Your task to perform on an android device: turn on the 24-hour format for clock Image 0: 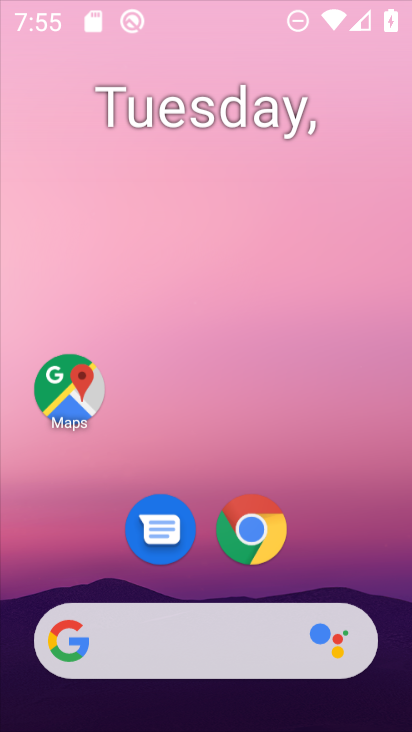
Step 0: drag from (177, 542) to (268, 90)
Your task to perform on an android device: turn on the 24-hour format for clock Image 1: 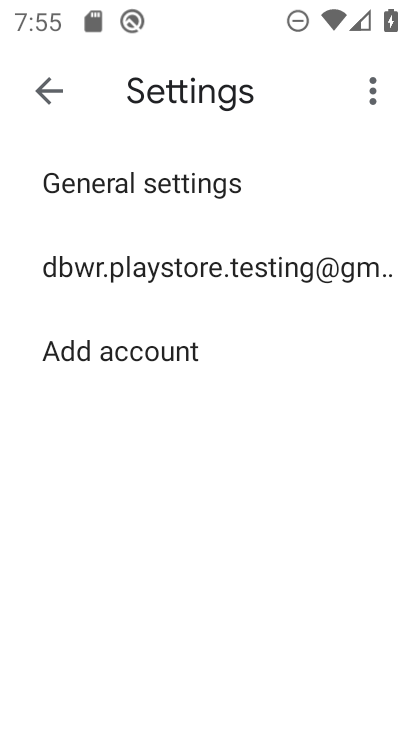
Step 1: press home button
Your task to perform on an android device: turn on the 24-hour format for clock Image 2: 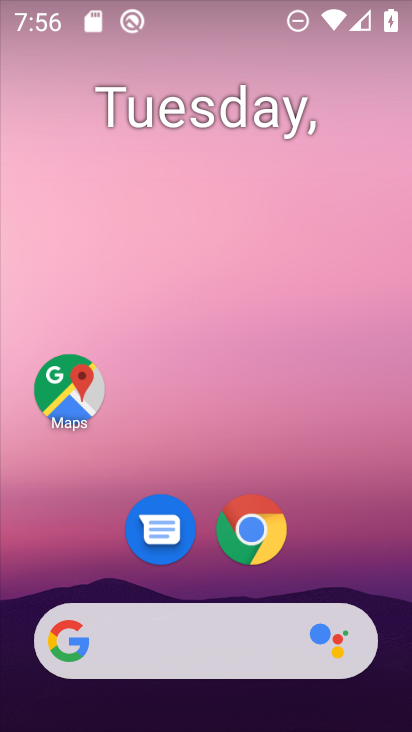
Step 2: drag from (142, 636) to (292, 145)
Your task to perform on an android device: turn on the 24-hour format for clock Image 3: 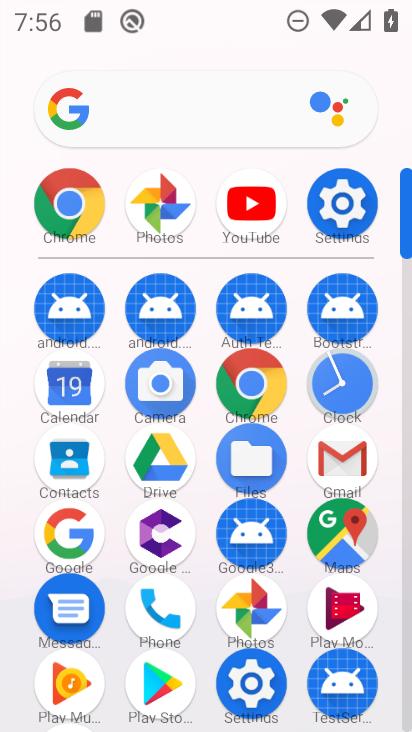
Step 3: click (338, 388)
Your task to perform on an android device: turn on the 24-hour format for clock Image 4: 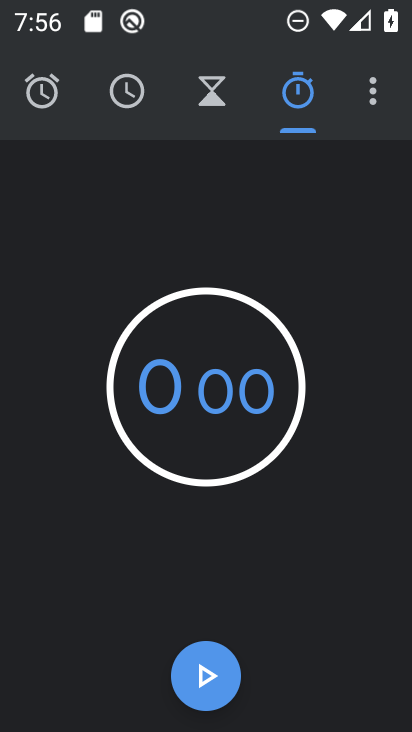
Step 4: click (371, 97)
Your task to perform on an android device: turn on the 24-hour format for clock Image 5: 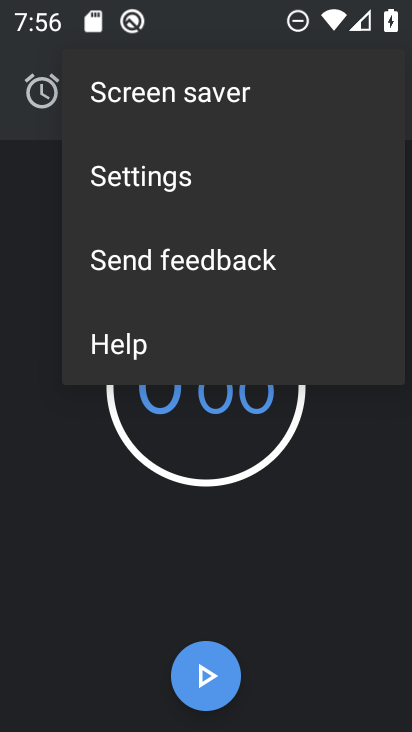
Step 5: click (176, 177)
Your task to perform on an android device: turn on the 24-hour format for clock Image 6: 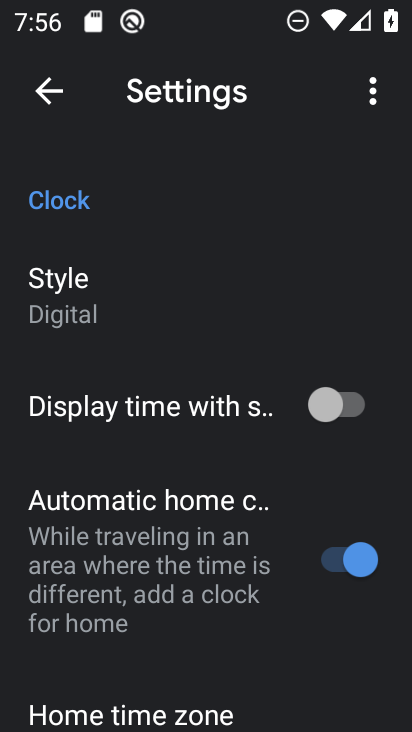
Step 6: drag from (196, 658) to (339, 227)
Your task to perform on an android device: turn on the 24-hour format for clock Image 7: 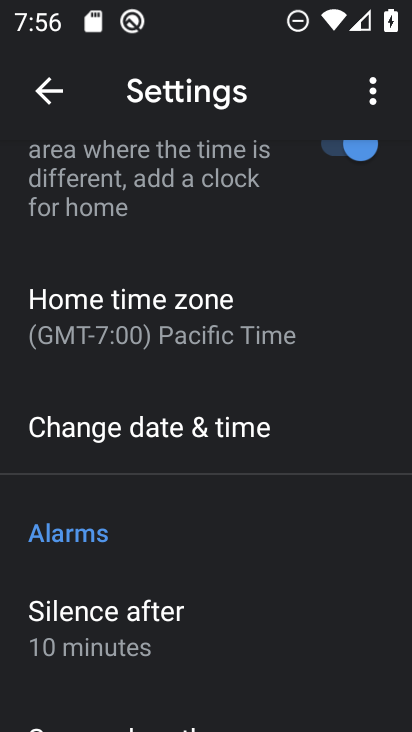
Step 7: click (199, 433)
Your task to perform on an android device: turn on the 24-hour format for clock Image 8: 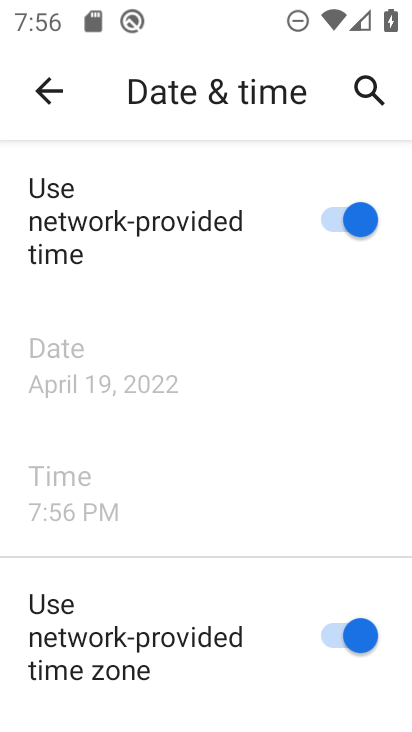
Step 8: drag from (210, 664) to (295, 341)
Your task to perform on an android device: turn on the 24-hour format for clock Image 9: 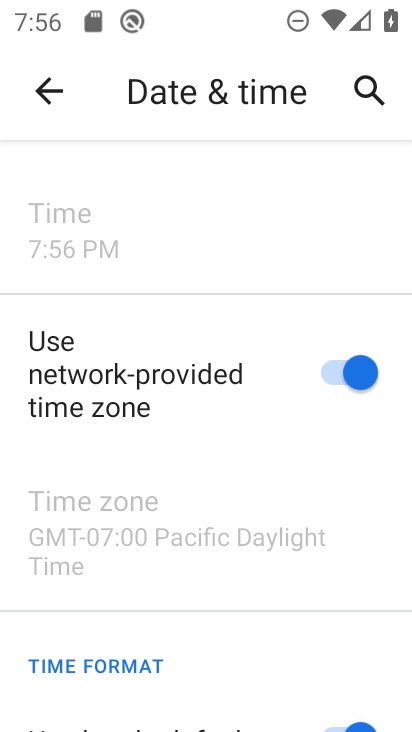
Step 9: drag from (253, 563) to (350, 229)
Your task to perform on an android device: turn on the 24-hour format for clock Image 10: 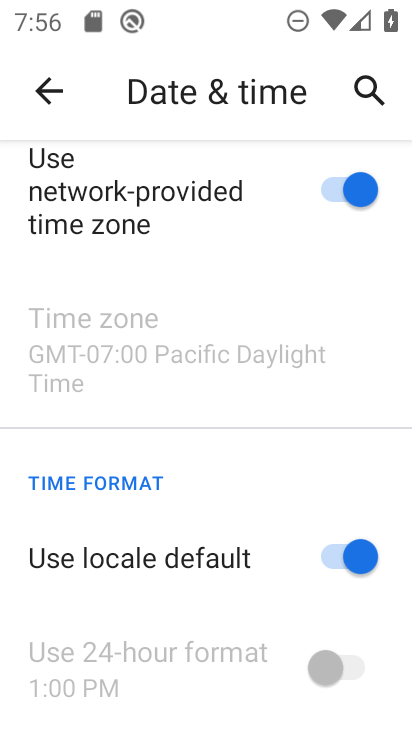
Step 10: drag from (230, 656) to (326, 247)
Your task to perform on an android device: turn on the 24-hour format for clock Image 11: 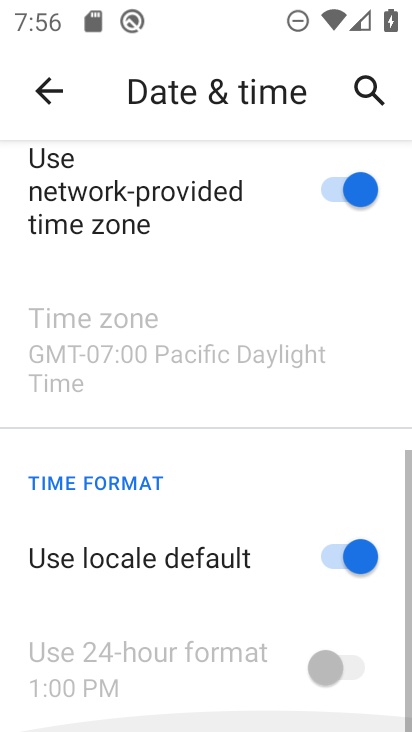
Step 11: click (335, 557)
Your task to perform on an android device: turn on the 24-hour format for clock Image 12: 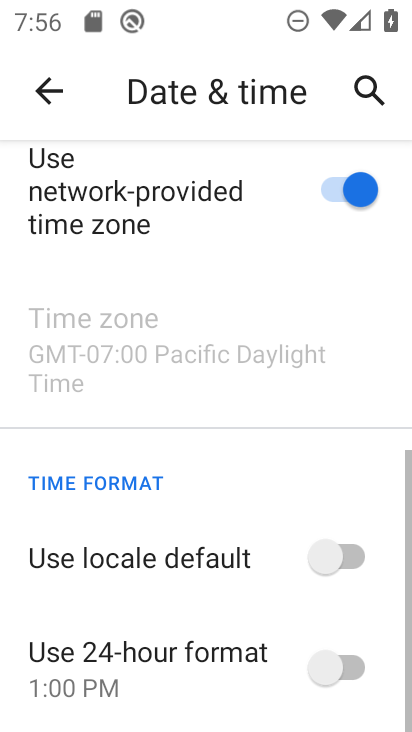
Step 12: click (354, 663)
Your task to perform on an android device: turn on the 24-hour format for clock Image 13: 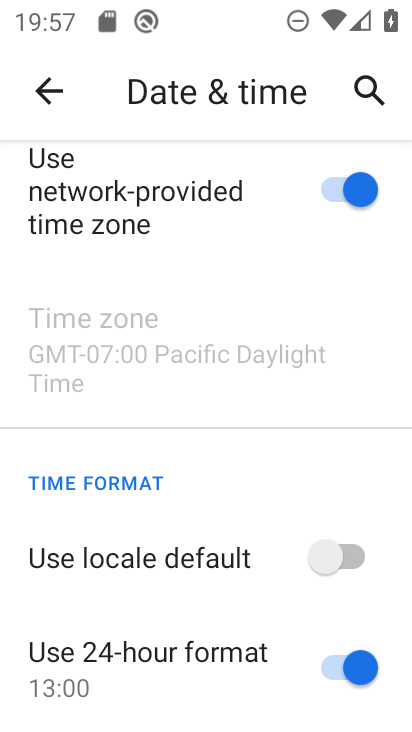
Step 13: task complete